Your task to perform on an android device: toggle priority inbox in the gmail app Image 0: 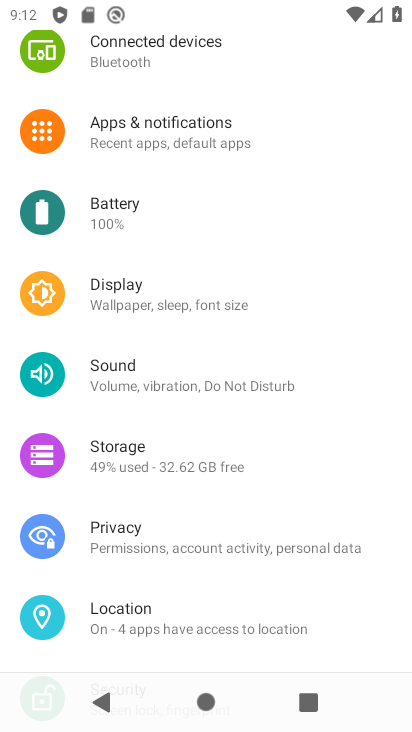
Step 0: press home button
Your task to perform on an android device: toggle priority inbox in the gmail app Image 1: 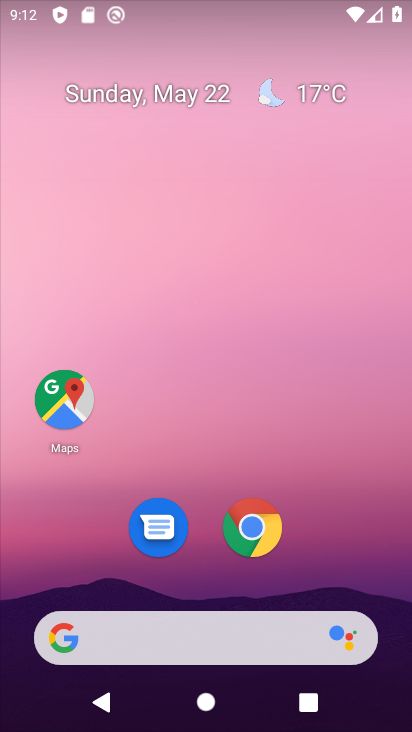
Step 1: drag from (314, 551) to (285, 0)
Your task to perform on an android device: toggle priority inbox in the gmail app Image 2: 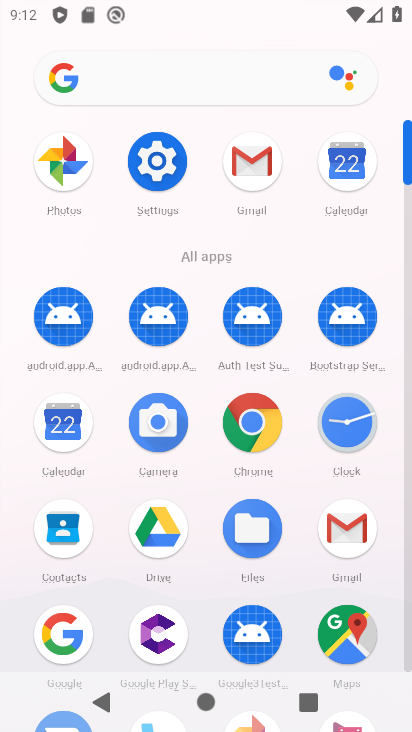
Step 2: click (252, 169)
Your task to perform on an android device: toggle priority inbox in the gmail app Image 3: 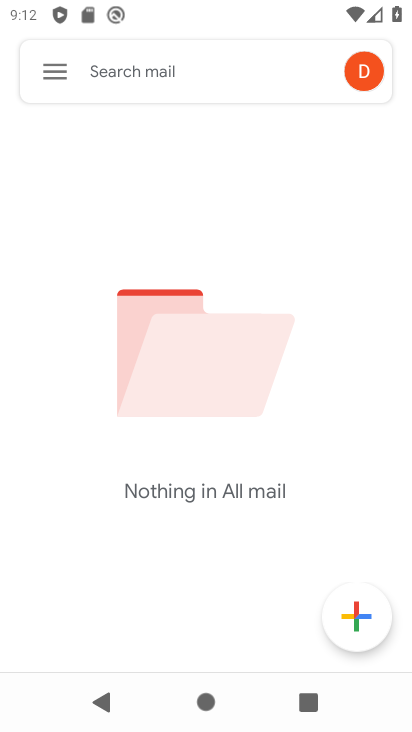
Step 3: click (58, 67)
Your task to perform on an android device: toggle priority inbox in the gmail app Image 4: 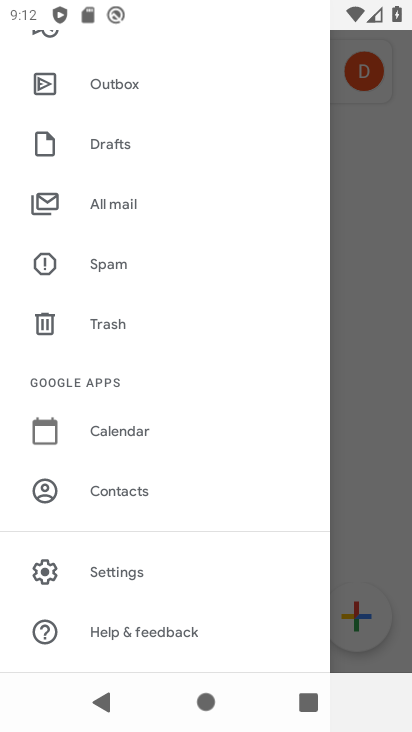
Step 4: click (118, 564)
Your task to perform on an android device: toggle priority inbox in the gmail app Image 5: 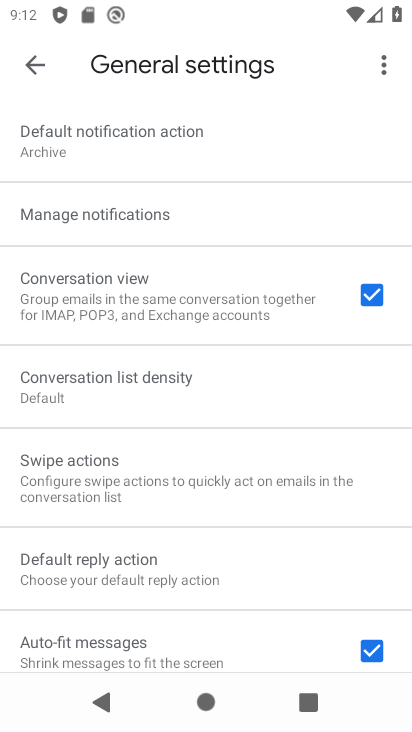
Step 5: click (37, 65)
Your task to perform on an android device: toggle priority inbox in the gmail app Image 6: 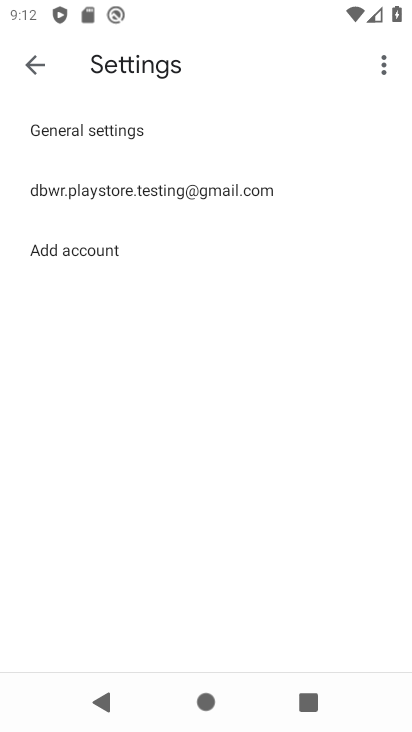
Step 6: click (142, 183)
Your task to perform on an android device: toggle priority inbox in the gmail app Image 7: 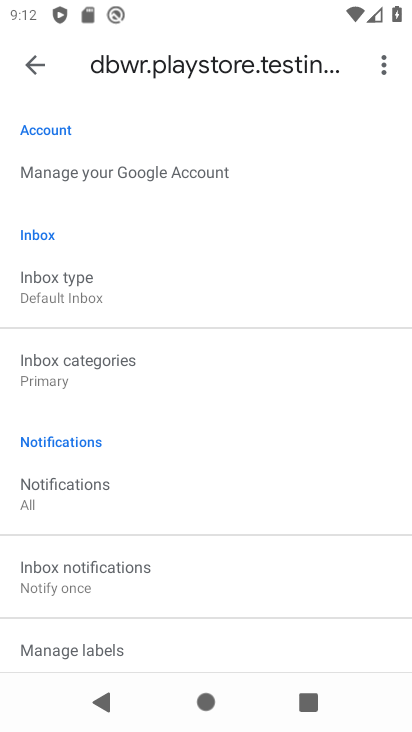
Step 7: click (60, 286)
Your task to perform on an android device: toggle priority inbox in the gmail app Image 8: 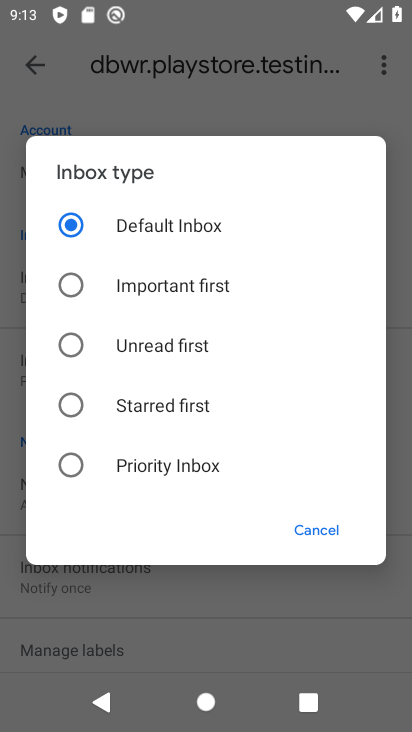
Step 8: click (76, 468)
Your task to perform on an android device: toggle priority inbox in the gmail app Image 9: 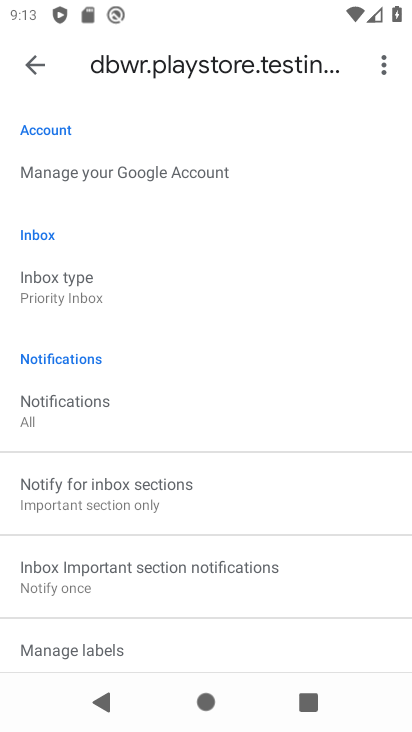
Step 9: task complete